Your task to perform on an android device: Open display settings Image 0: 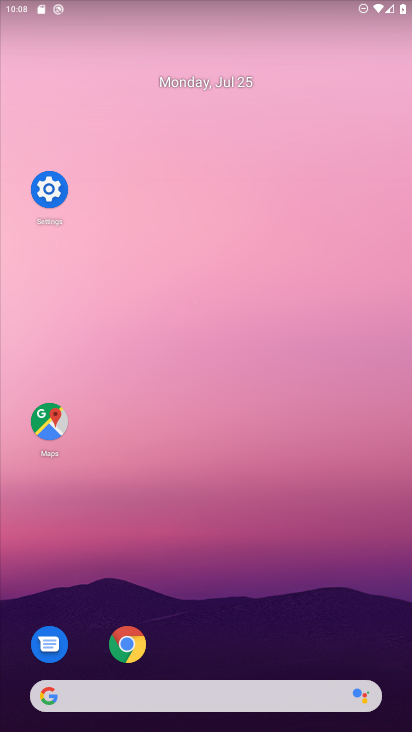
Step 0: drag from (273, 663) to (239, 204)
Your task to perform on an android device: Open display settings Image 1: 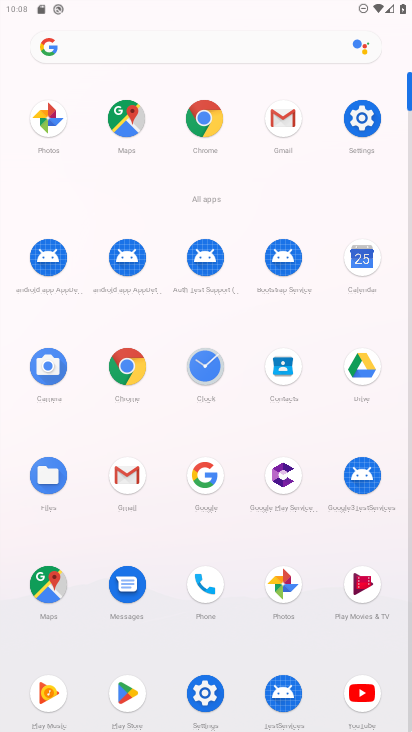
Step 1: click (376, 105)
Your task to perform on an android device: Open display settings Image 2: 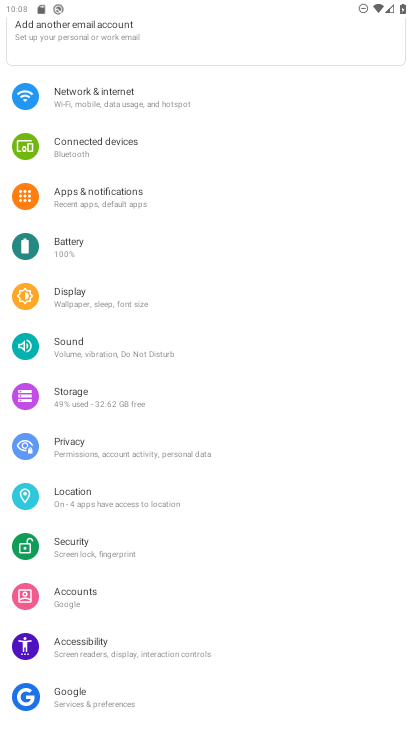
Step 2: click (143, 293)
Your task to perform on an android device: Open display settings Image 3: 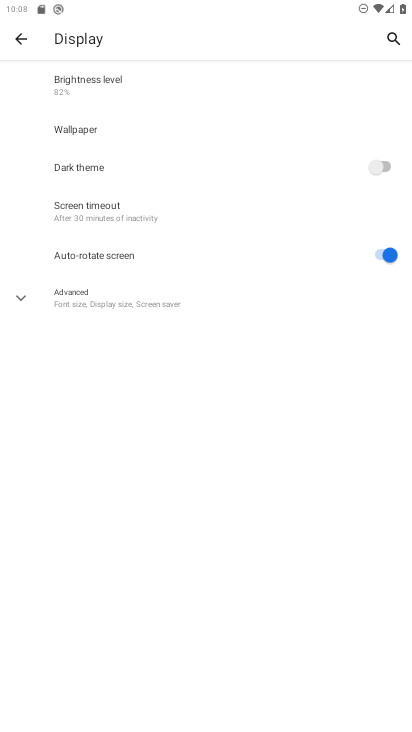
Step 3: task complete